Your task to perform on an android device: Go to privacy settings Image 0: 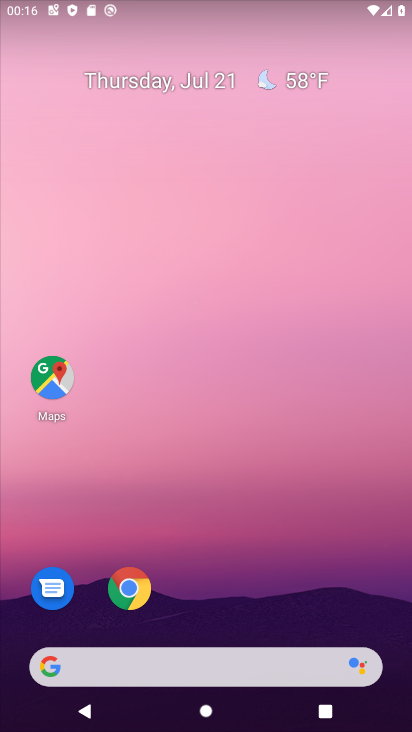
Step 0: drag from (256, 613) to (232, 171)
Your task to perform on an android device: Go to privacy settings Image 1: 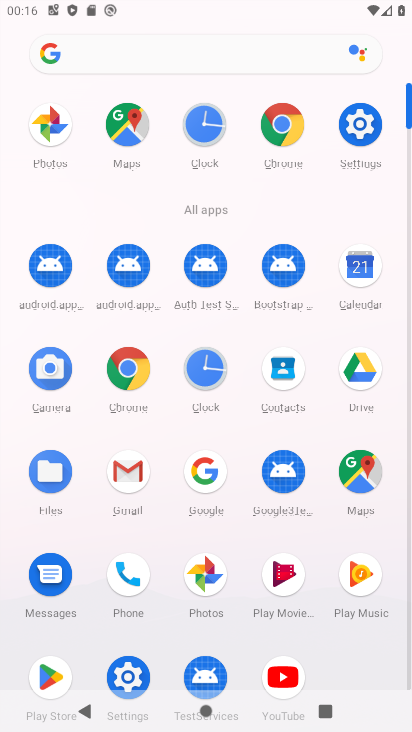
Step 1: click (124, 656)
Your task to perform on an android device: Go to privacy settings Image 2: 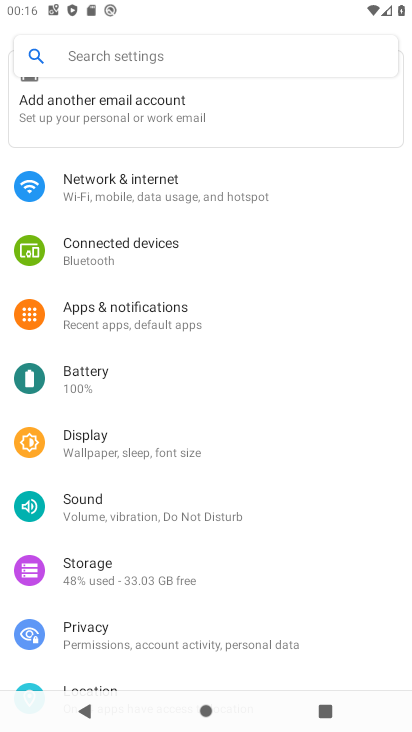
Step 2: drag from (162, 528) to (166, 356)
Your task to perform on an android device: Go to privacy settings Image 3: 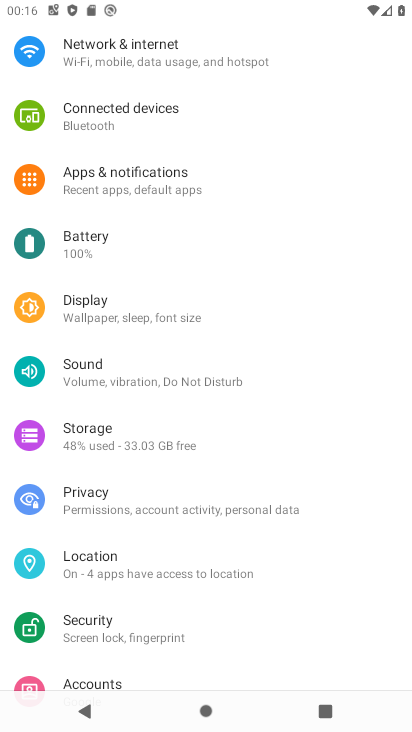
Step 3: click (105, 501)
Your task to perform on an android device: Go to privacy settings Image 4: 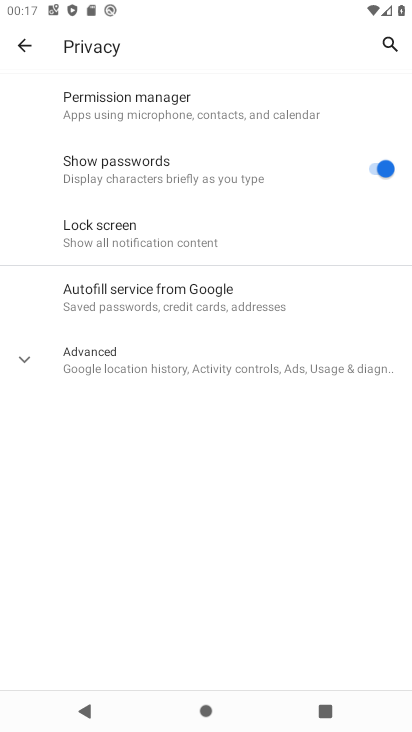
Step 4: task complete